Your task to perform on an android device: Go to notification settings Image 0: 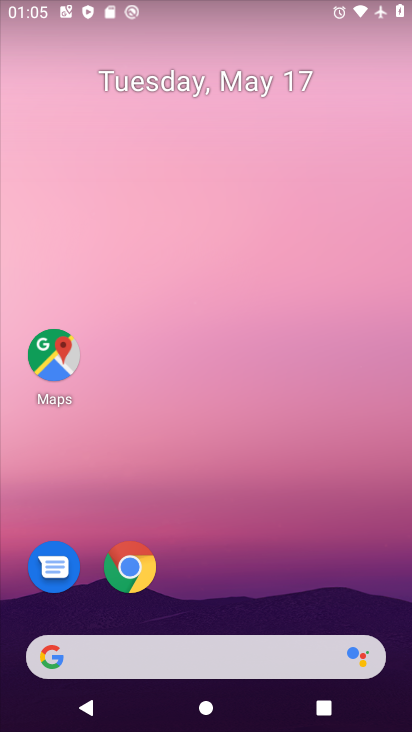
Step 0: drag from (262, 521) to (139, 14)
Your task to perform on an android device: Go to notification settings Image 1: 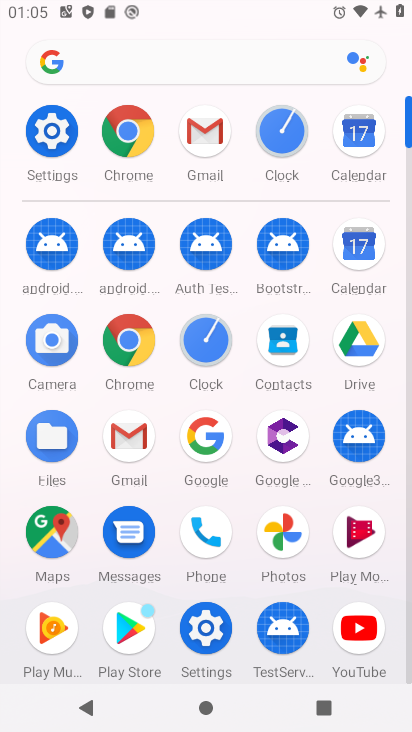
Step 1: click (47, 135)
Your task to perform on an android device: Go to notification settings Image 2: 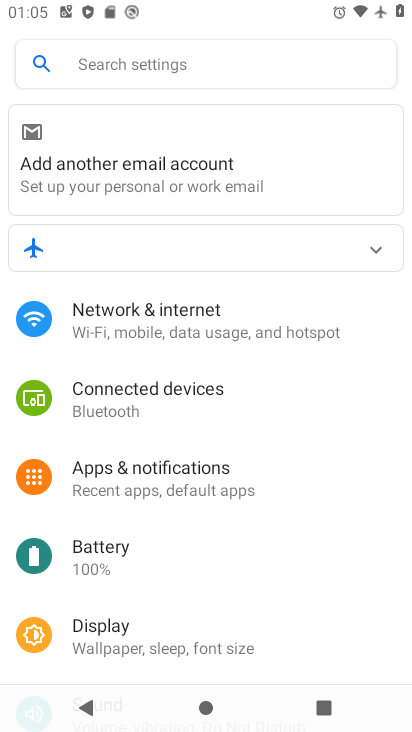
Step 2: click (171, 475)
Your task to perform on an android device: Go to notification settings Image 3: 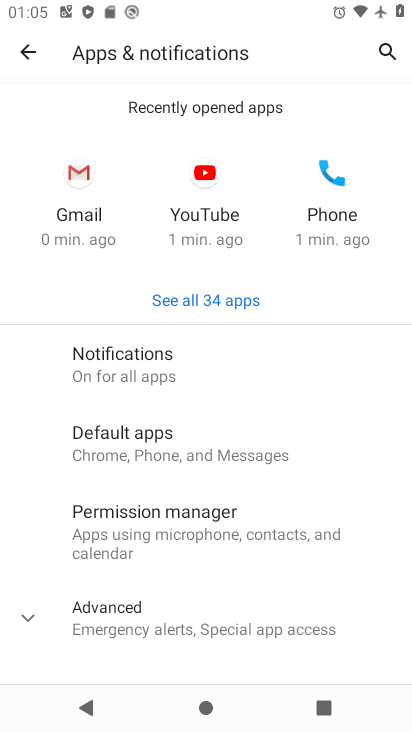
Step 3: task complete